Your task to perform on an android device: change the clock display to show seconds Image 0: 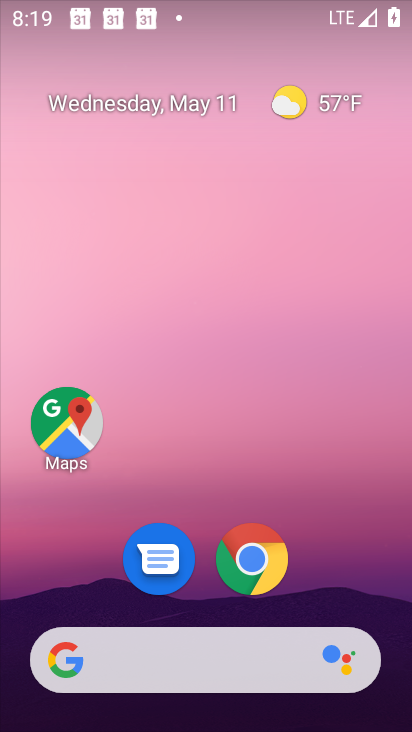
Step 0: drag from (374, 550) to (268, 37)
Your task to perform on an android device: change the clock display to show seconds Image 1: 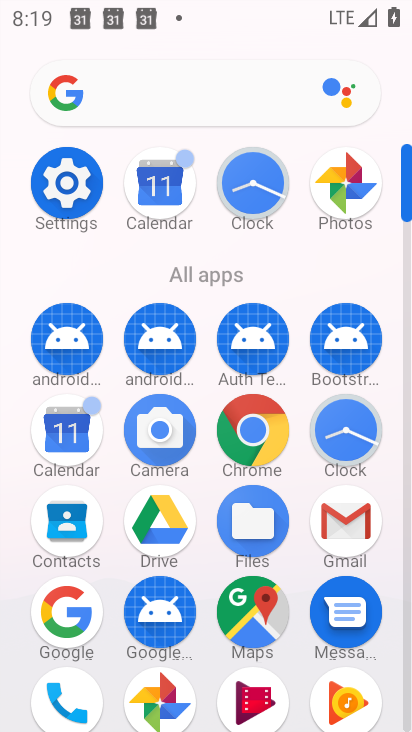
Step 1: click (342, 406)
Your task to perform on an android device: change the clock display to show seconds Image 2: 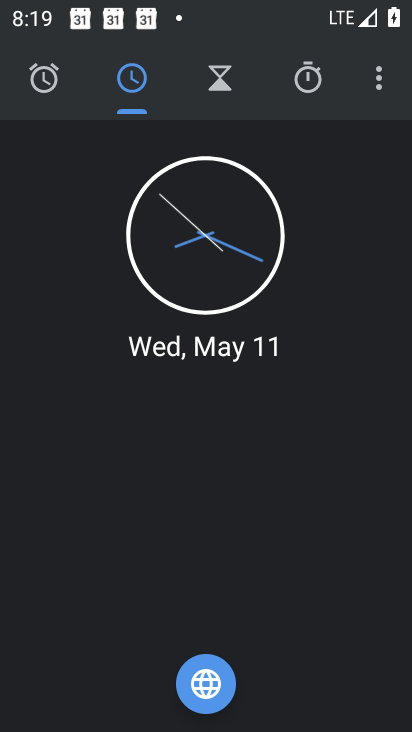
Step 2: click (380, 72)
Your task to perform on an android device: change the clock display to show seconds Image 3: 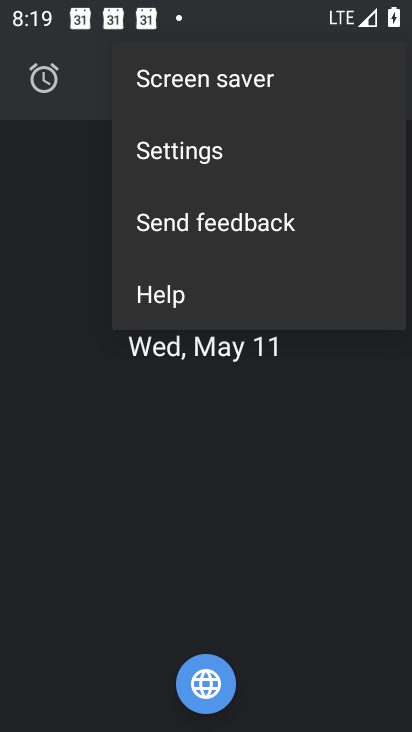
Step 3: click (213, 160)
Your task to perform on an android device: change the clock display to show seconds Image 4: 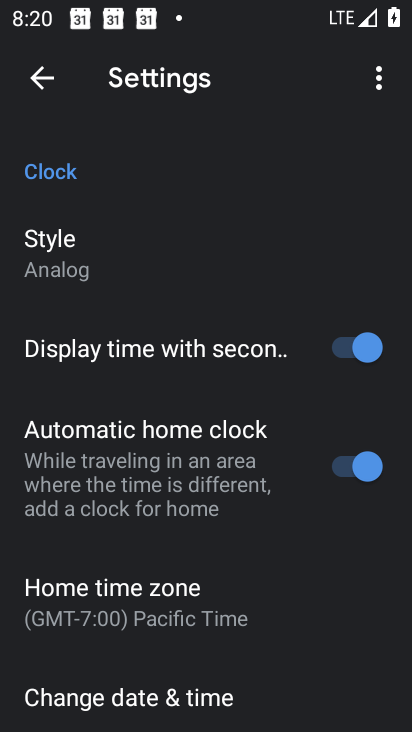
Step 4: task complete